Your task to perform on an android device: change the clock display to analog Image 0: 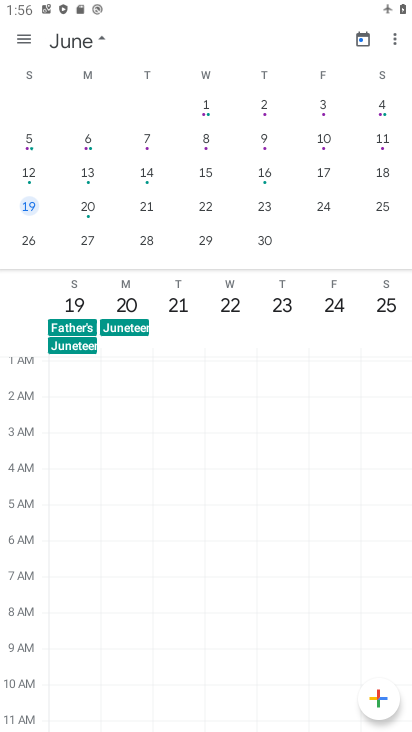
Step 0: press home button
Your task to perform on an android device: change the clock display to analog Image 1: 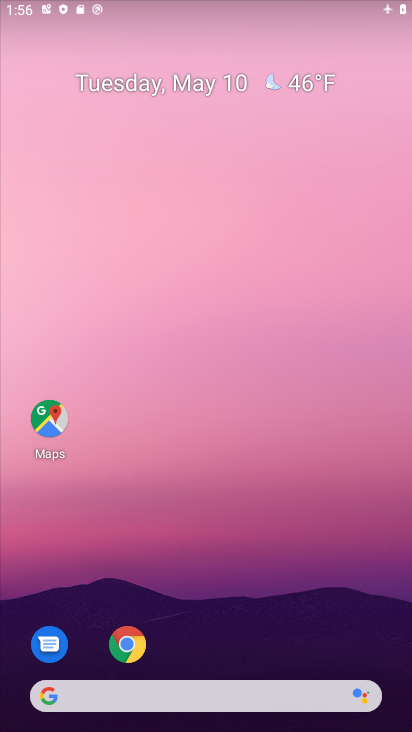
Step 1: drag from (221, 503) to (254, 190)
Your task to perform on an android device: change the clock display to analog Image 2: 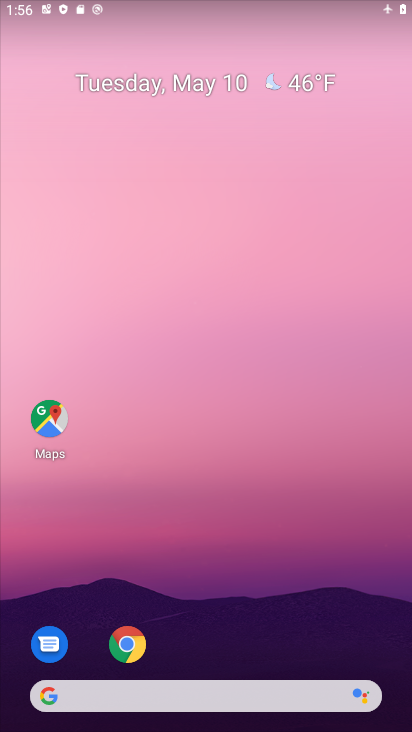
Step 2: drag from (244, 534) to (265, 181)
Your task to perform on an android device: change the clock display to analog Image 3: 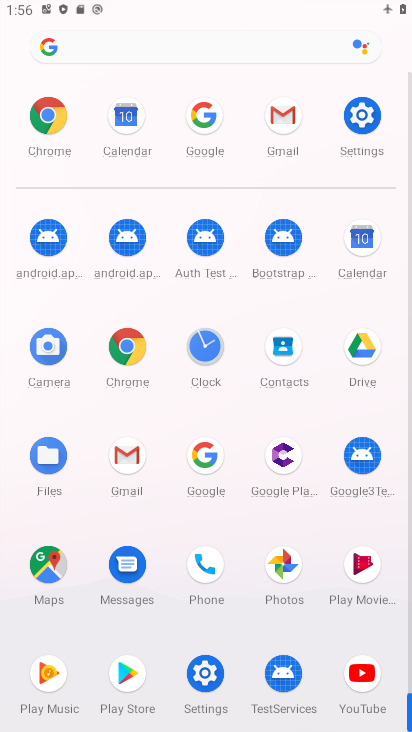
Step 3: click (209, 370)
Your task to perform on an android device: change the clock display to analog Image 4: 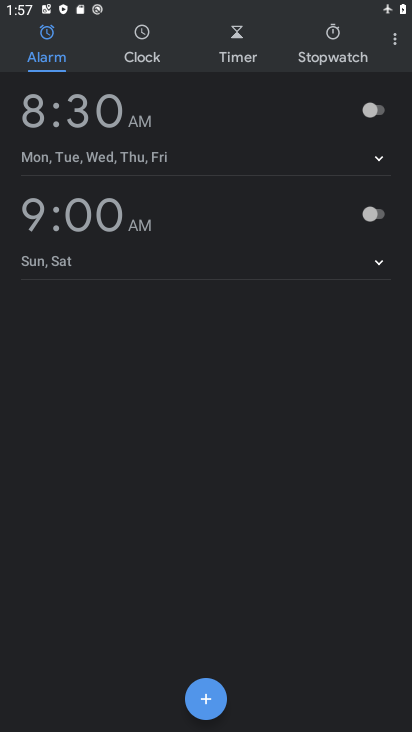
Step 4: click (398, 42)
Your task to perform on an android device: change the clock display to analog Image 5: 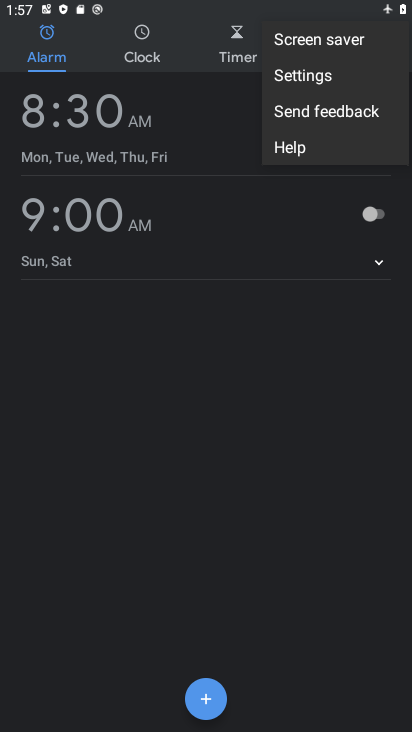
Step 5: click (330, 87)
Your task to perform on an android device: change the clock display to analog Image 6: 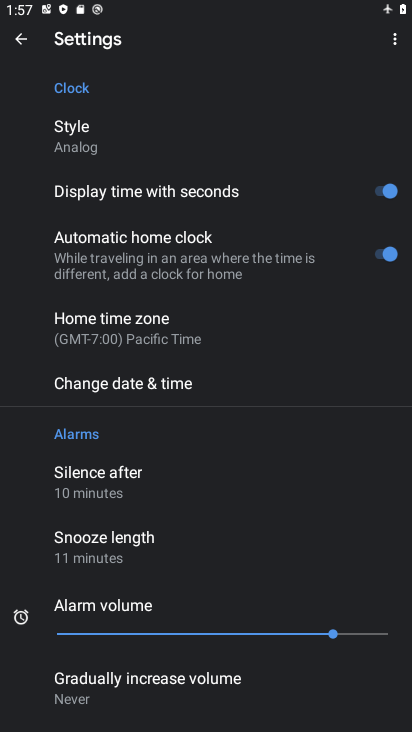
Step 6: task complete